Your task to perform on an android device: toggle notification dots Image 0: 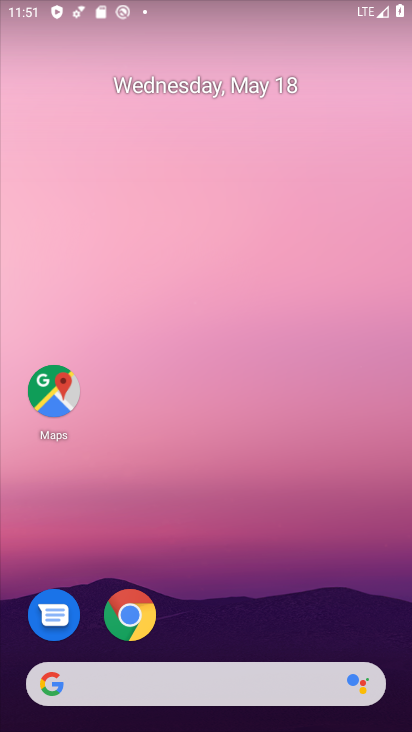
Step 0: drag from (218, 589) to (154, 33)
Your task to perform on an android device: toggle notification dots Image 1: 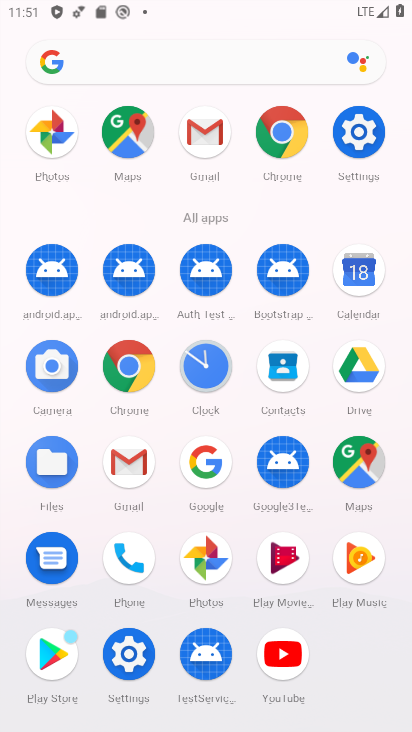
Step 1: drag from (10, 501) to (0, 130)
Your task to perform on an android device: toggle notification dots Image 2: 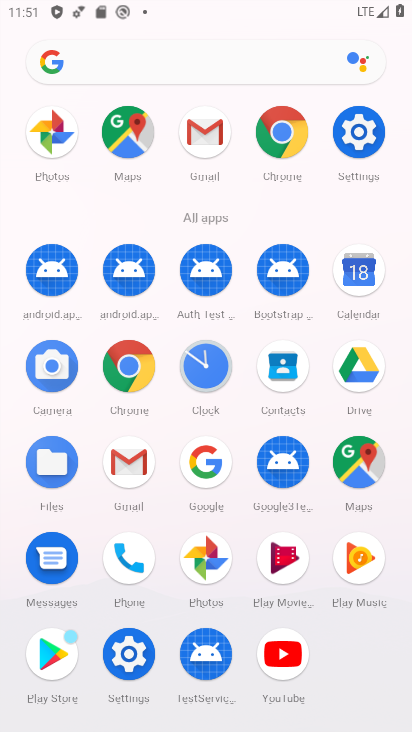
Step 2: click (130, 652)
Your task to perform on an android device: toggle notification dots Image 3: 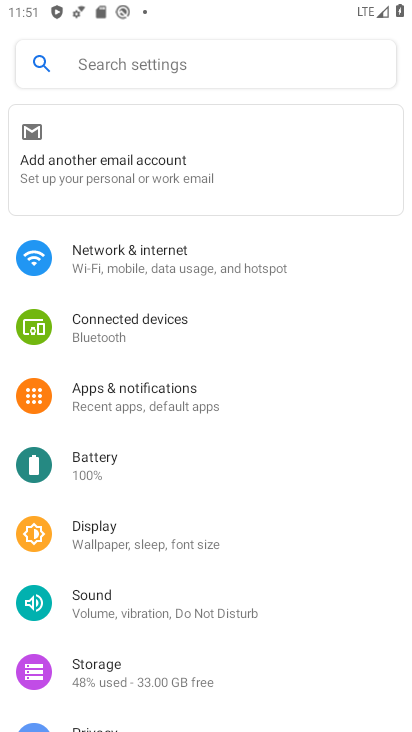
Step 3: drag from (200, 618) to (259, 215)
Your task to perform on an android device: toggle notification dots Image 4: 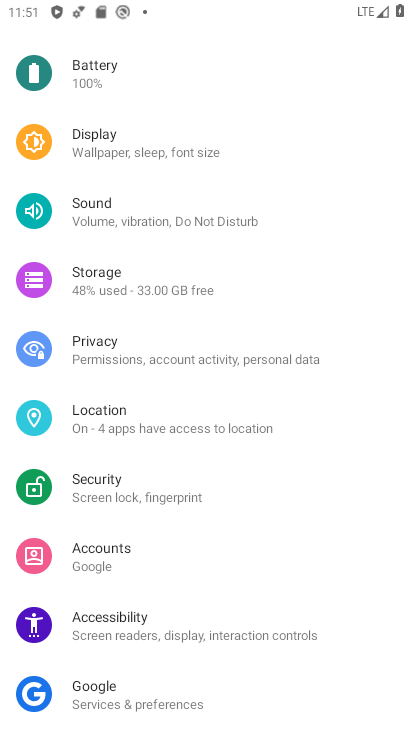
Step 4: drag from (206, 220) to (206, 499)
Your task to perform on an android device: toggle notification dots Image 5: 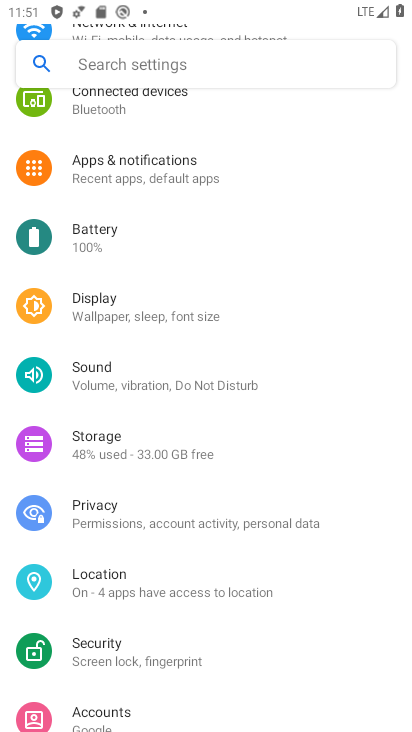
Step 5: click (145, 183)
Your task to perform on an android device: toggle notification dots Image 6: 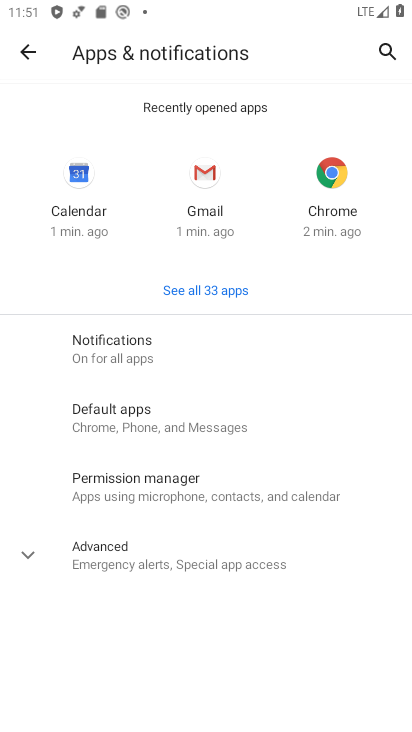
Step 6: click (142, 339)
Your task to perform on an android device: toggle notification dots Image 7: 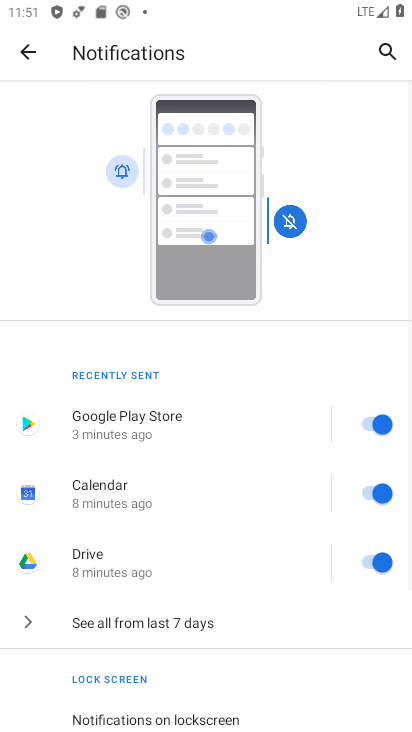
Step 7: drag from (205, 469) to (238, 156)
Your task to perform on an android device: toggle notification dots Image 8: 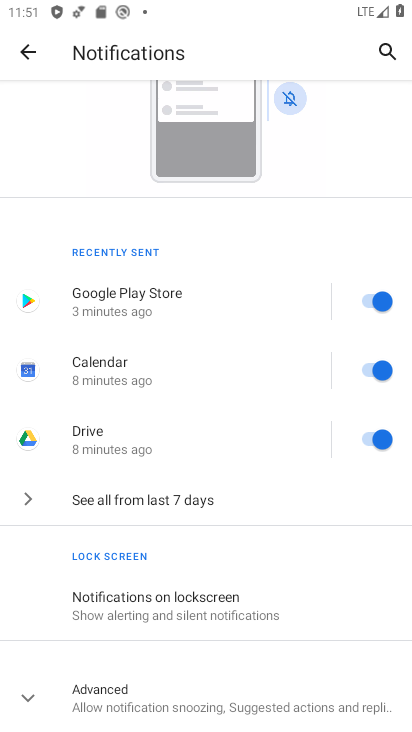
Step 8: click (149, 686)
Your task to perform on an android device: toggle notification dots Image 9: 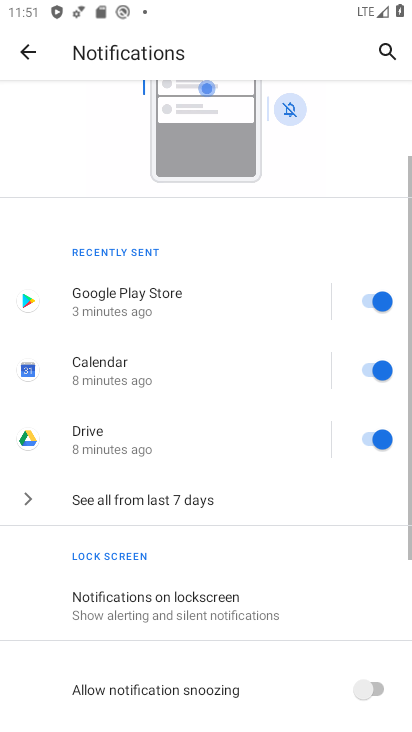
Step 9: drag from (220, 619) to (244, 183)
Your task to perform on an android device: toggle notification dots Image 10: 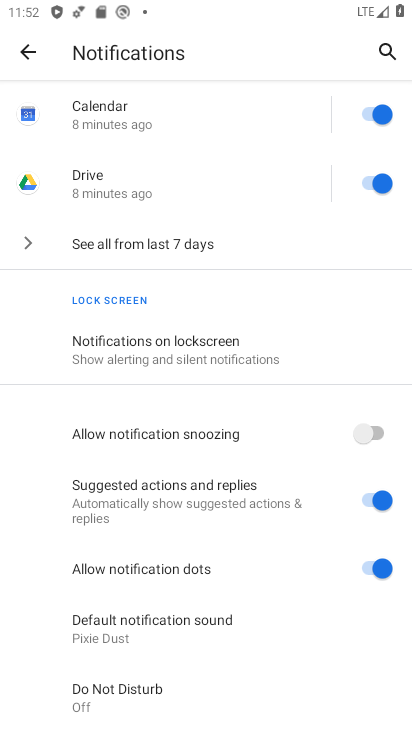
Step 10: click (369, 560)
Your task to perform on an android device: toggle notification dots Image 11: 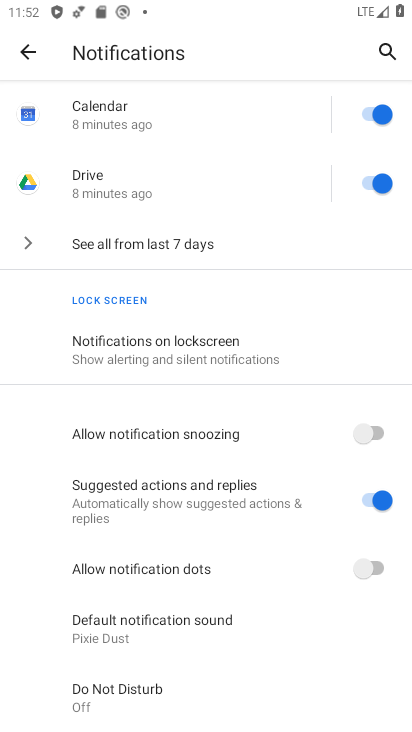
Step 11: task complete